Your task to perform on an android device: Go to battery settings Image 0: 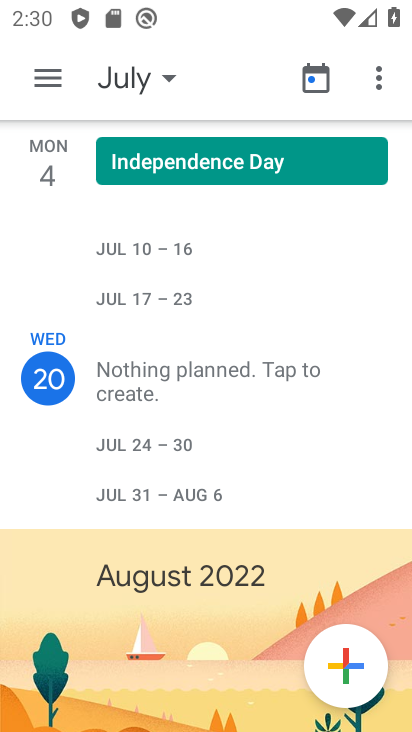
Step 0: press back button
Your task to perform on an android device: Go to battery settings Image 1: 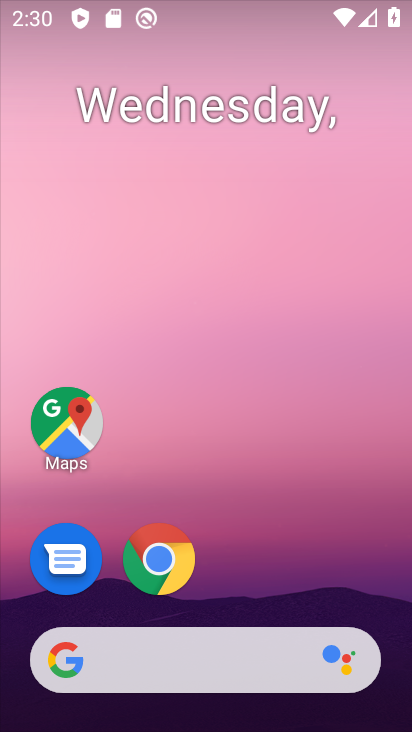
Step 1: drag from (253, 556) to (290, 19)
Your task to perform on an android device: Go to battery settings Image 2: 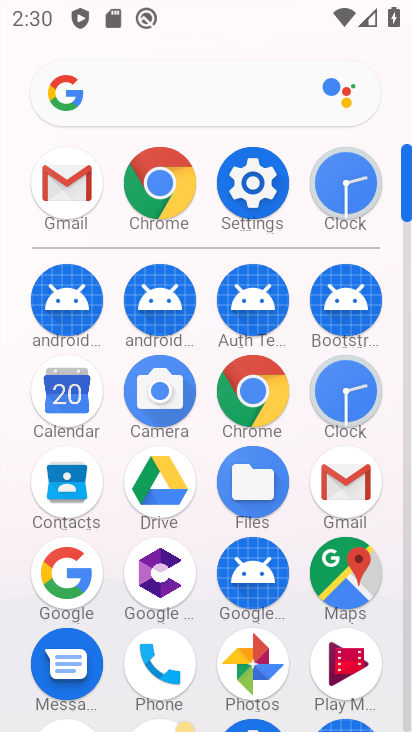
Step 2: click (253, 195)
Your task to perform on an android device: Go to battery settings Image 3: 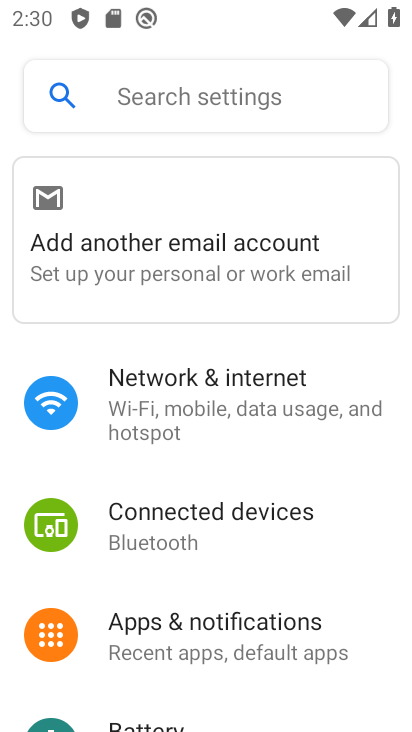
Step 3: click (141, 718)
Your task to perform on an android device: Go to battery settings Image 4: 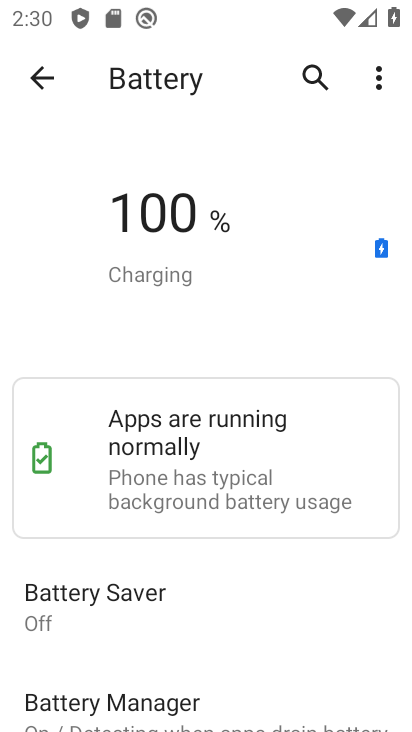
Step 4: task complete